Your task to perform on an android device: Go to internet settings Image 0: 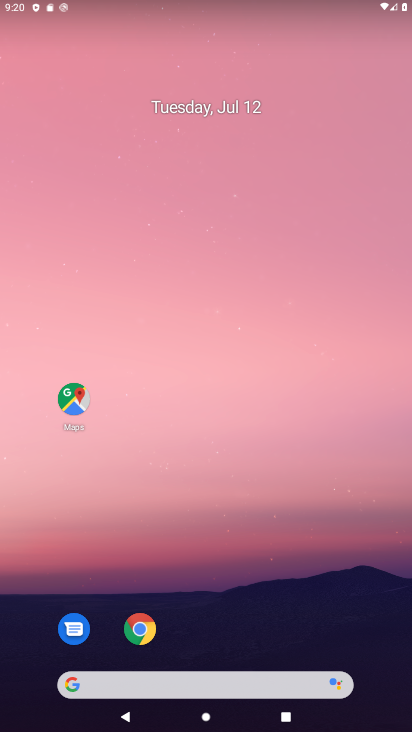
Step 0: drag from (170, 670) to (196, 131)
Your task to perform on an android device: Go to internet settings Image 1: 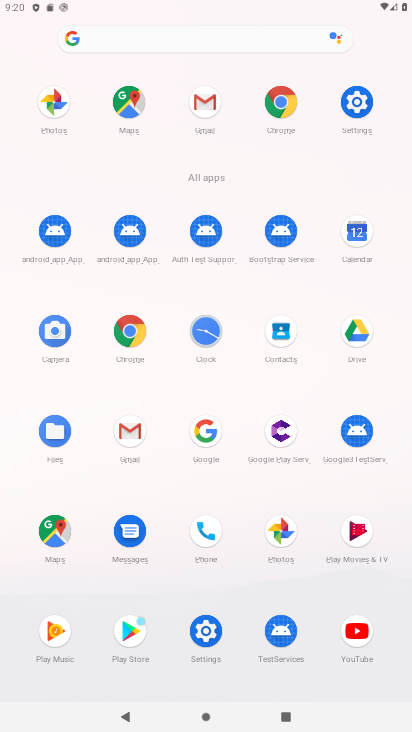
Step 1: click (201, 636)
Your task to perform on an android device: Go to internet settings Image 2: 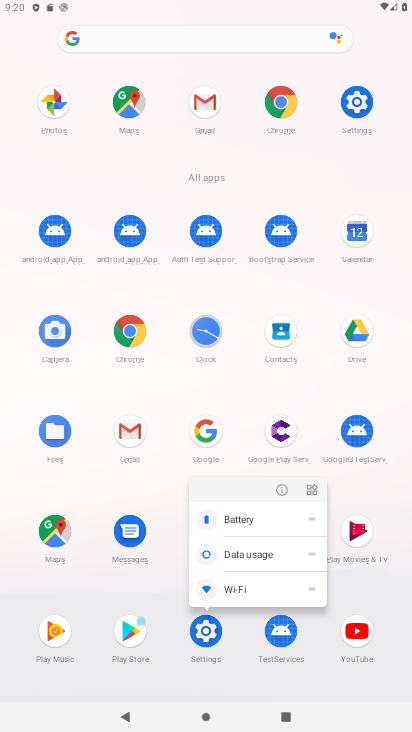
Step 2: click (208, 632)
Your task to perform on an android device: Go to internet settings Image 3: 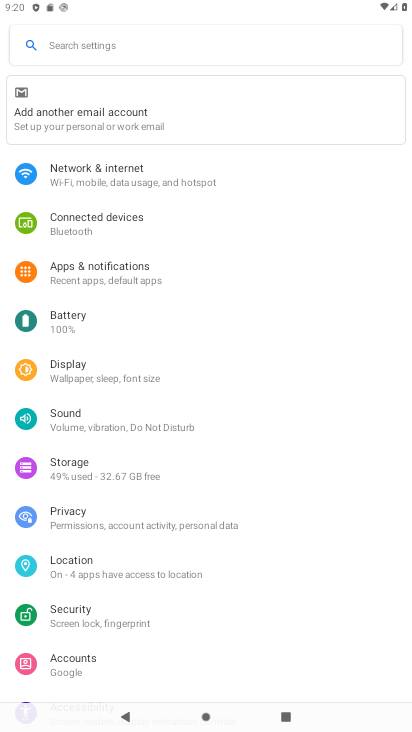
Step 3: click (122, 179)
Your task to perform on an android device: Go to internet settings Image 4: 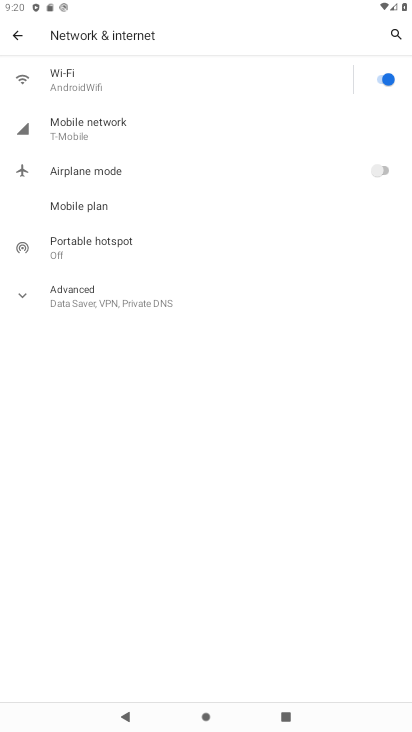
Step 4: click (123, 127)
Your task to perform on an android device: Go to internet settings Image 5: 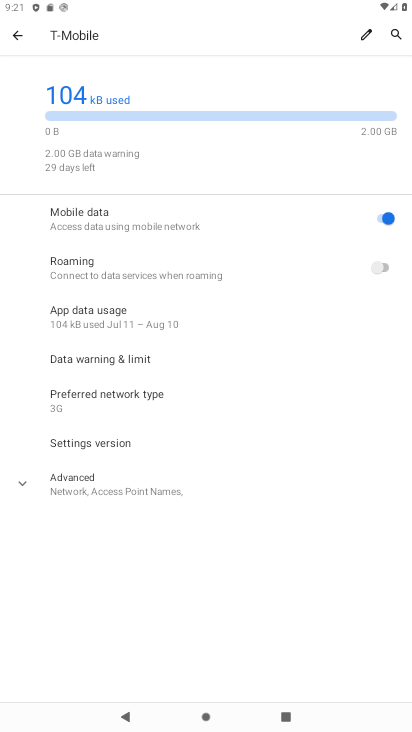
Step 5: task complete